Your task to perform on an android device: snooze an email in the gmail app Image 0: 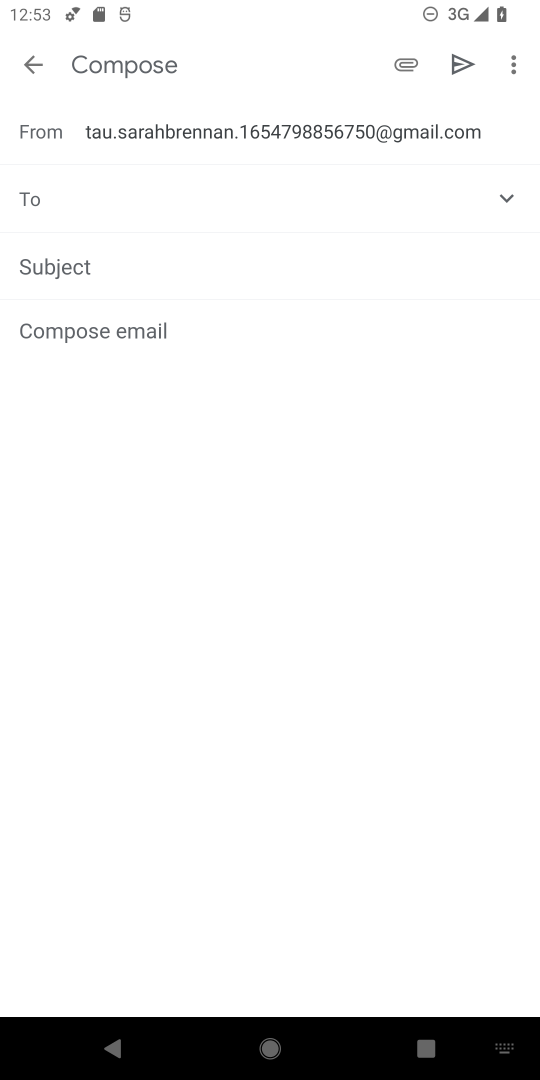
Step 0: press home button
Your task to perform on an android device: snooze an email in the gmail app Image 1: 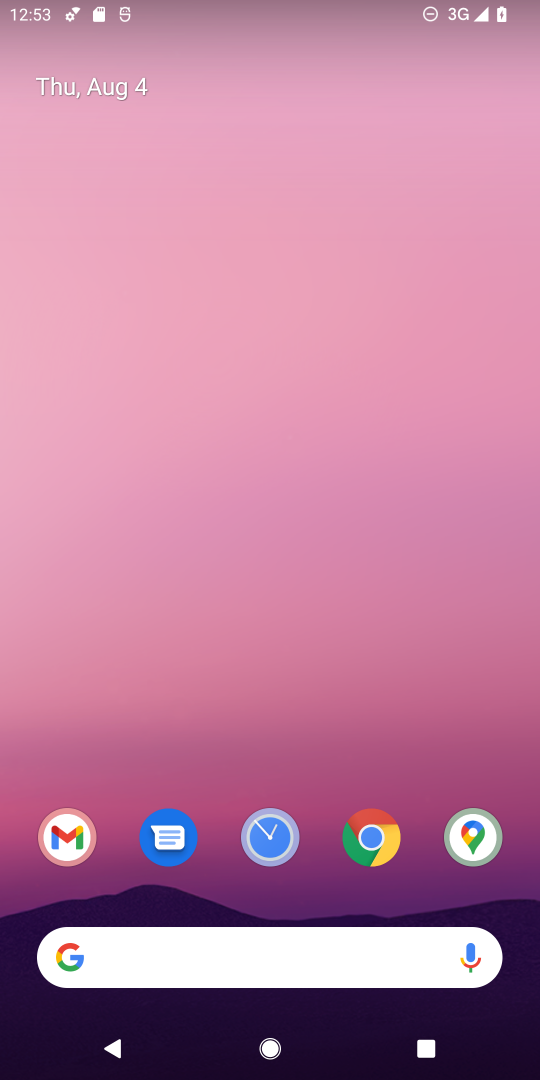
Step 1: drag from (449, 913) to (226, 38)
Your task to perform on an android device: snooze an email in the gmail app Image 2: 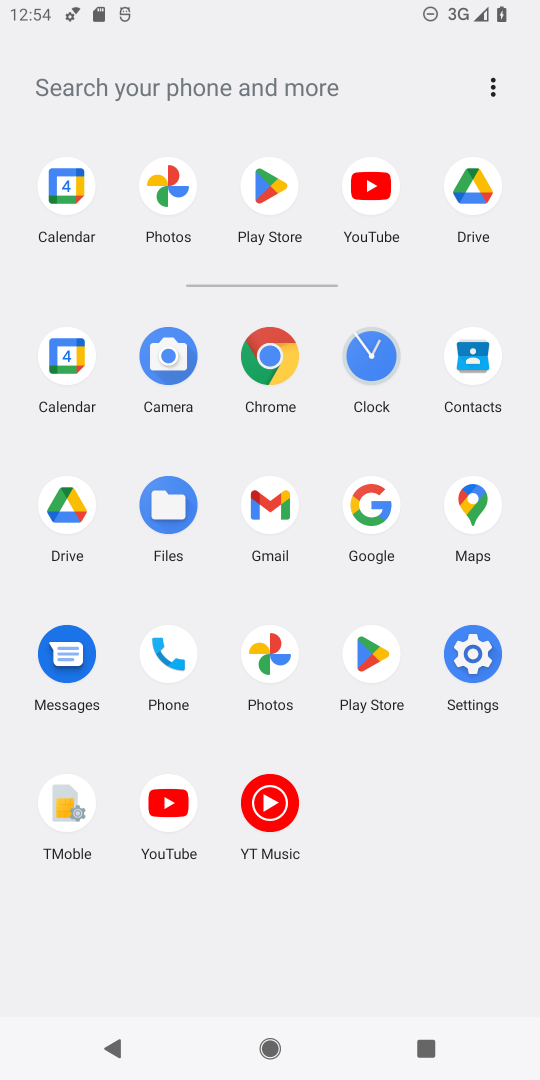
Step 2: click (275, 509)
Your task to perform on an android device: snooze an email in the gmail app Image 3: 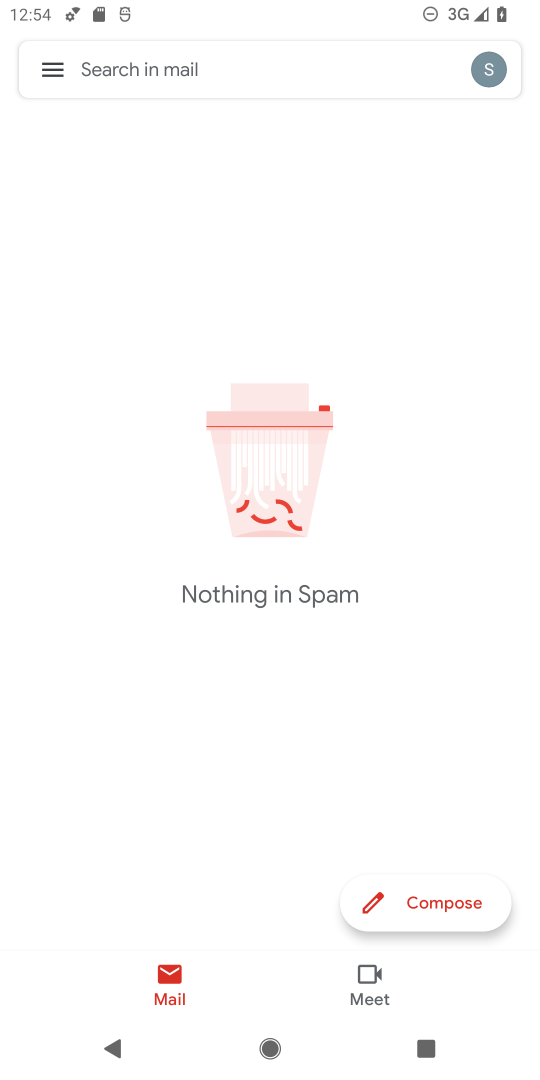
Step 3: click (60, 79)
Your task to perform on an android device: snooze an email in the gmail app Image 4: 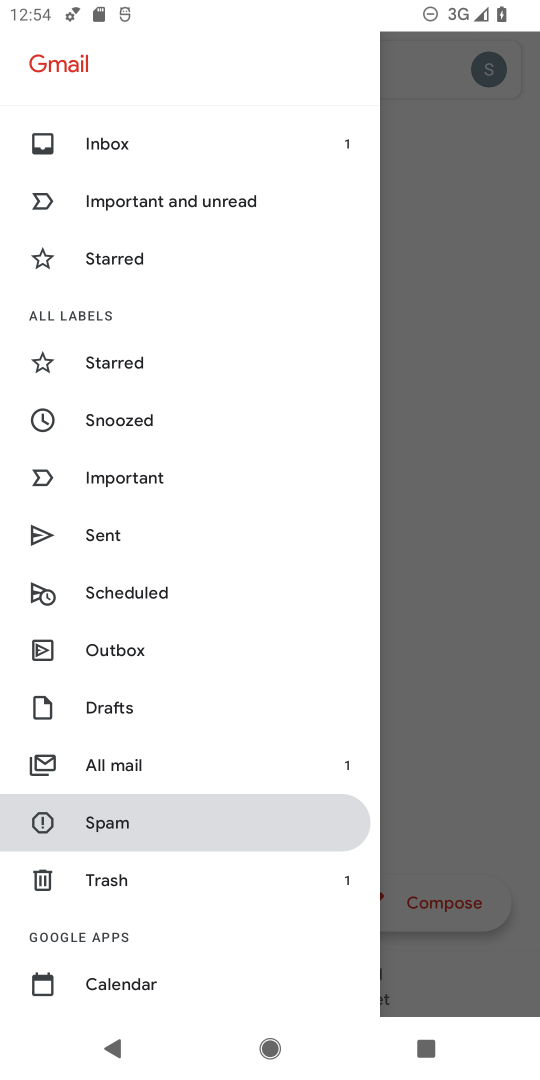
Step 4: task complete